Your task to perform on an android device: install app "Facebook" Image 0: 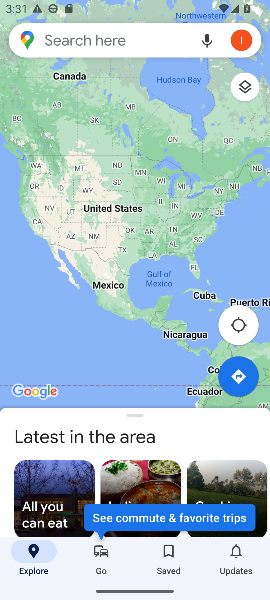
Step 0: press back button
Your task to perform on an android device: install app "Facebook" Image 1: 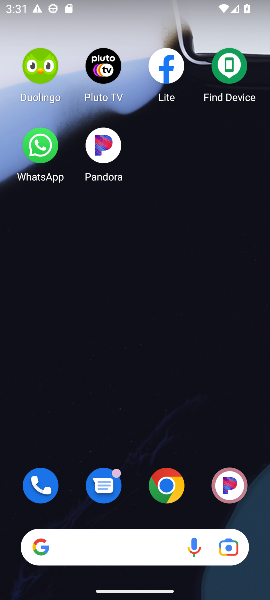
Step 1: drag from (120, 515) to (125, 89)
Your task to perform on an android device: install app "Facebook" Image 2: 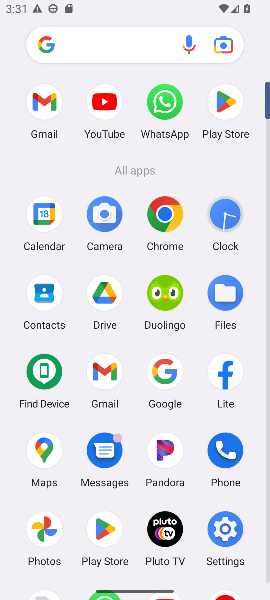
Step 2: click (101, 518)
Your task to perform on an android device: install app "Facebook" Image 3: 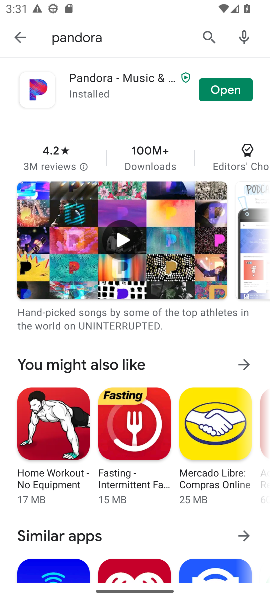
Step 3: click (214, 33)
Your task to perform on an android device: install app "Facebook" Image 4: 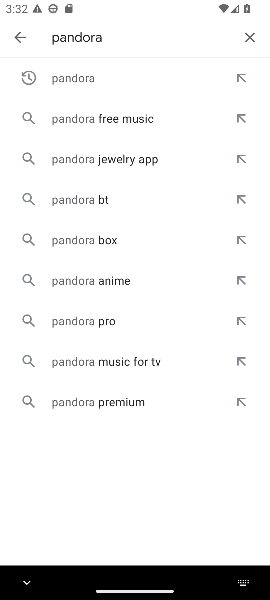
Step 4: click (256, 28)
Your task to perform on an android device: install app "Facebook" Image 5: 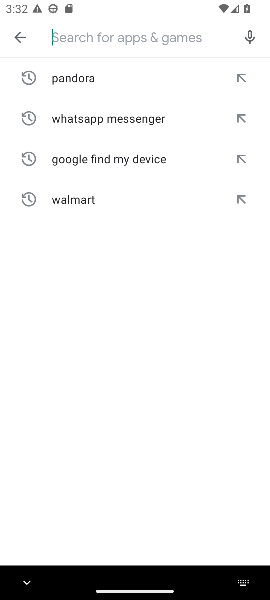
Step 5: click (90, 35)
Your task to perform on an android device: install app "Facebook" Image 6: 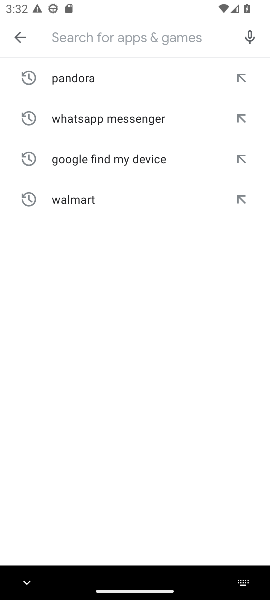
Step 6: type "facebook"
Your task to perform on an android device: install app "Facebook" Image 7: 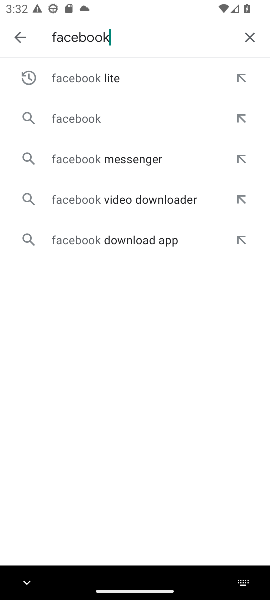
Step 7: click (101, 113)
Your task to perform on an android device: install app "Facebook" Image 8: 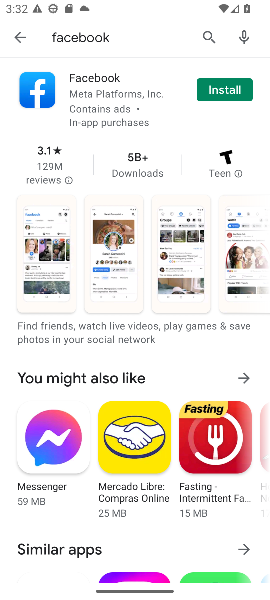
Step 8: click (222, 90)
Your task to perform on an android device: install app "Facebook" Image 9: 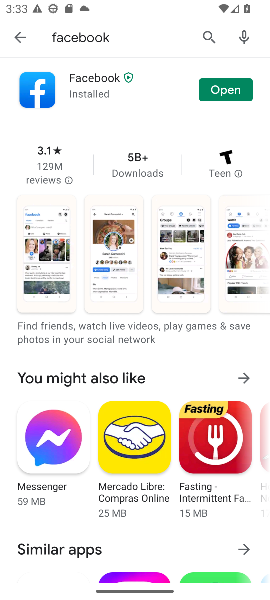
Step 9: click (203, 90)
Your task to perform on an android device: install app "Facebook" Image 10: 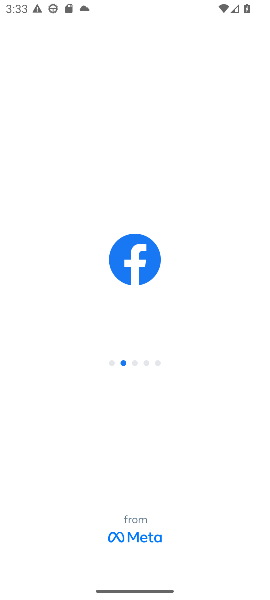
Step 10: task complete